Your task to perform on an android device: turn off notifications in google photos Image 0: 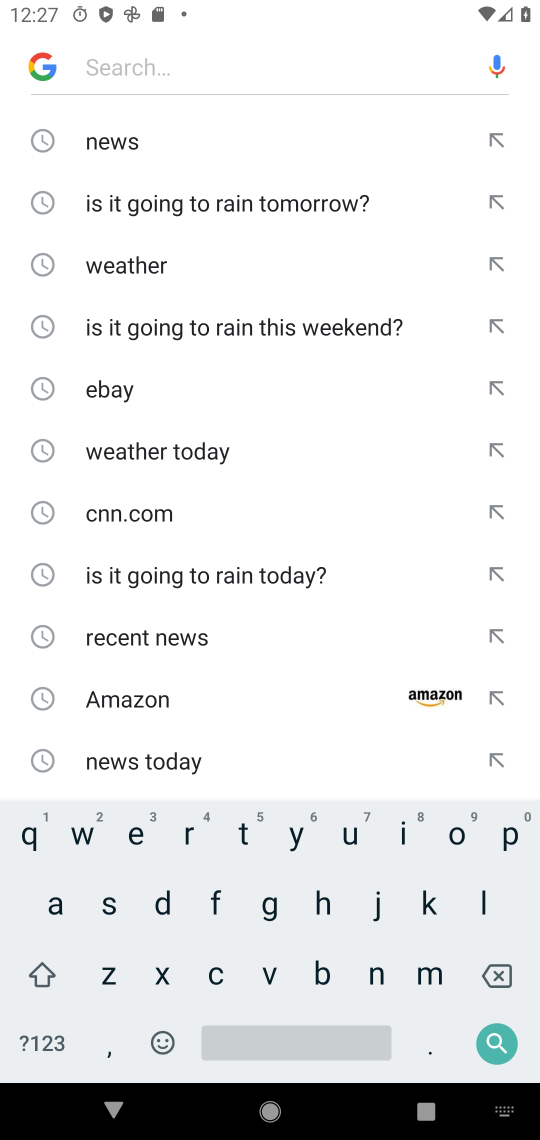
Step 0: press home button
Your task to perform on an android device: turn off notifications in google photos Image 1: 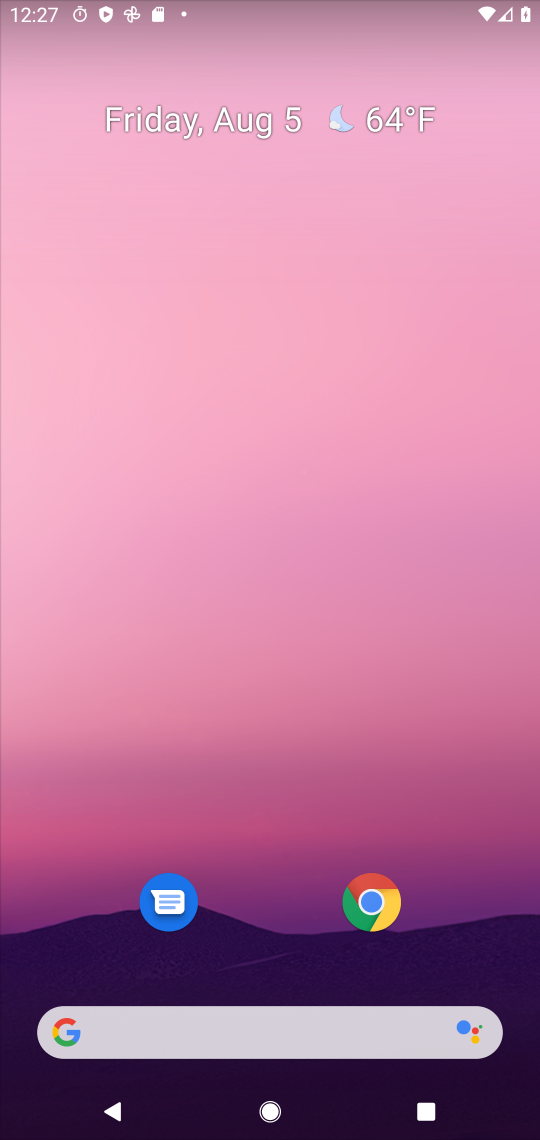
Step 1: drag from (355, 1064) to (401, 167)
Your task to perform on an android device: turn off notifications in google photos Image 2: 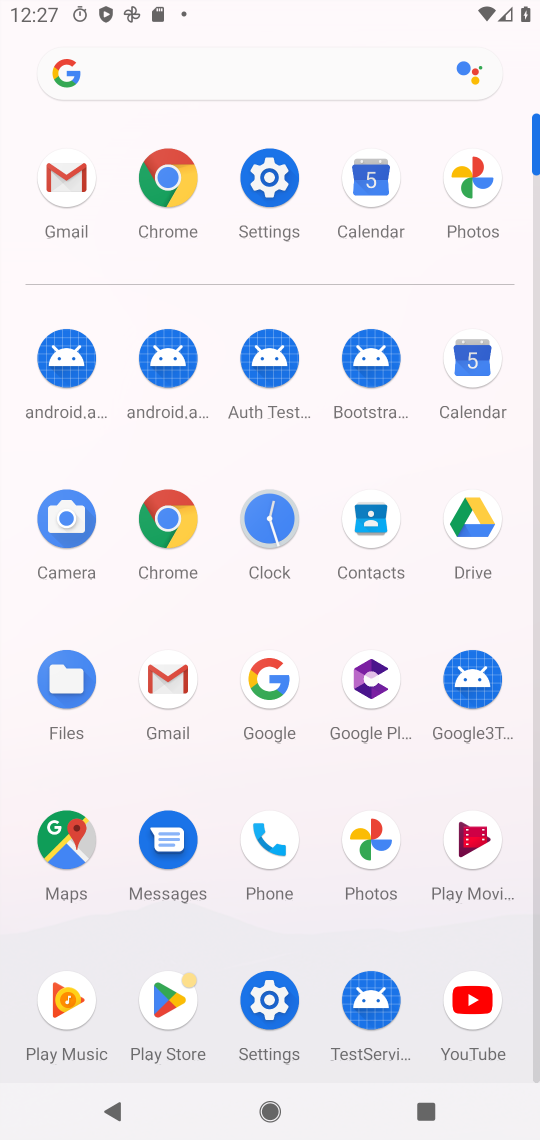
Step 2: click (357, 833)
Your task to perform on an android device: turn off notifications in google photos Image 3: 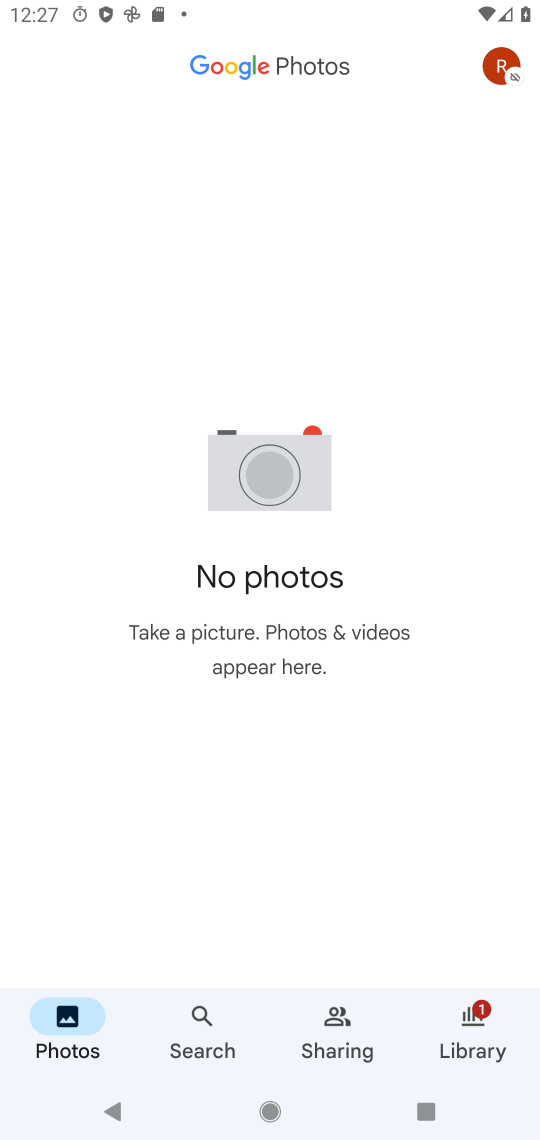
Step 3: click (498, 63)
Your task to perform on an android device: turn off notifications in google photos Image 4: 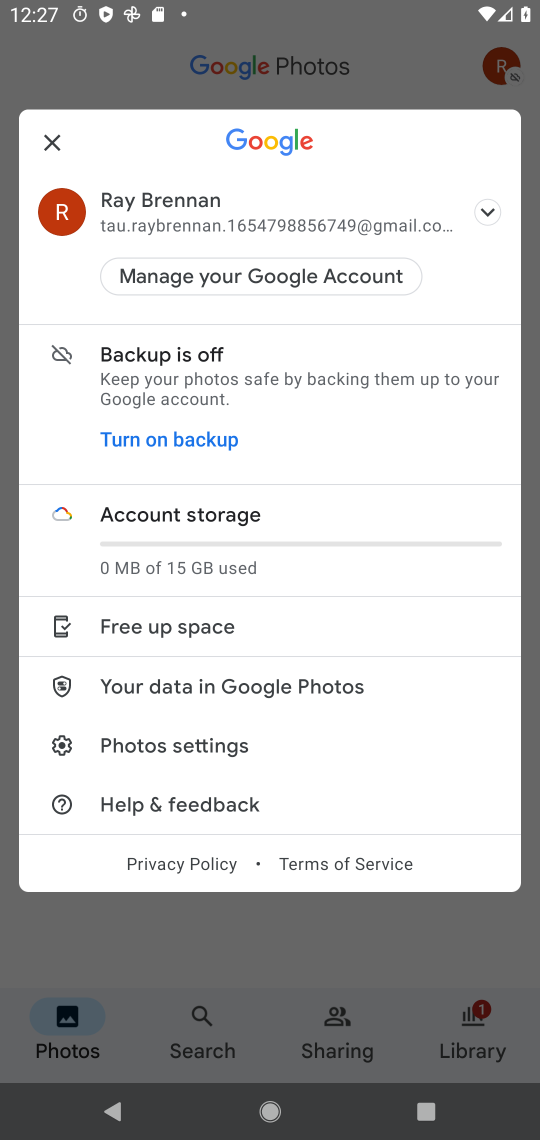
Step 4: click (167, 751)
Your task to perform on an android device: turn off notifications in google photos Image 5: 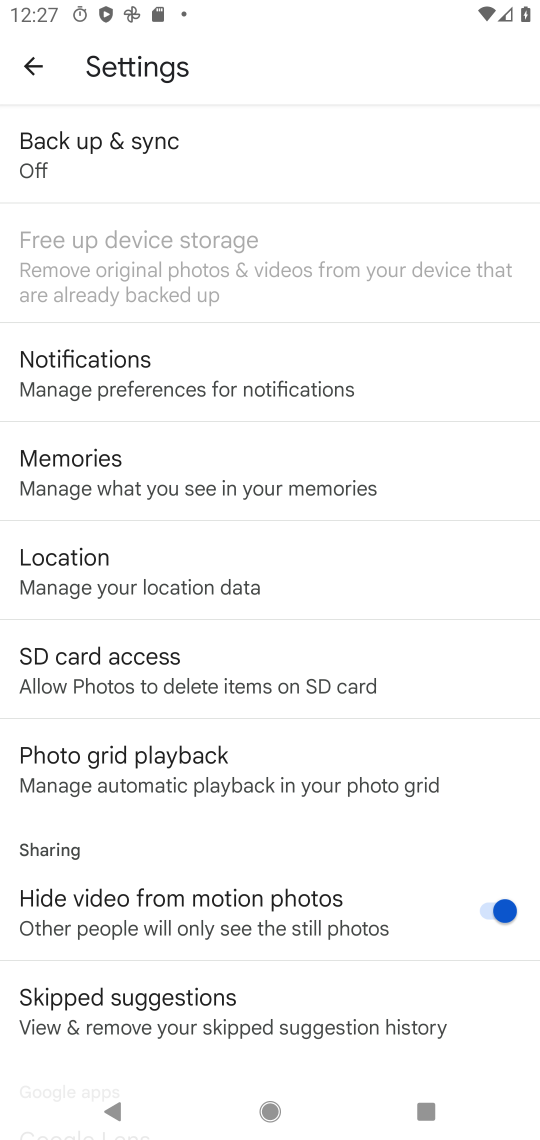
Step 5: click (158, 367)
Your task to perform on an android device: turn off notifications in google photos Image 6: 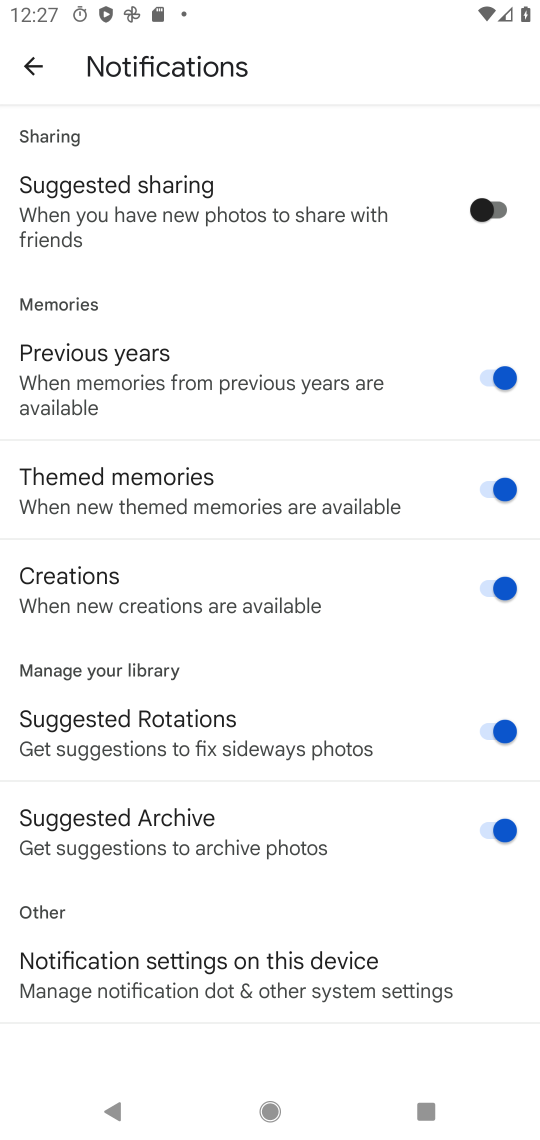
Step 6: click (231, 969)
Your task to perform on an android device: turn off notifications in google photos Image 7: 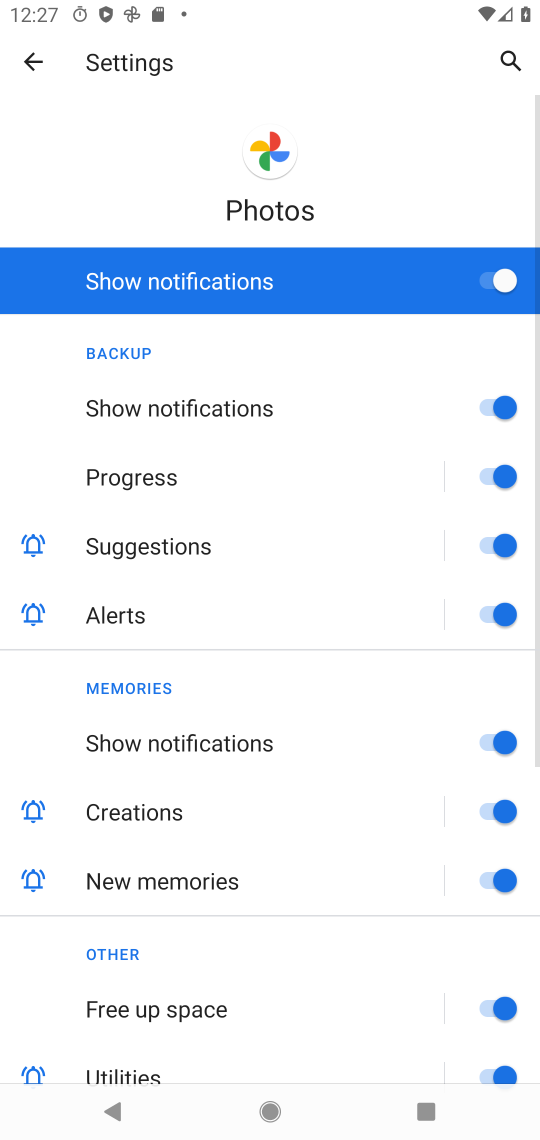
Step 7: click (465, 277)
Your task to perform on an android device: turn off notifications in google photos Image 8: 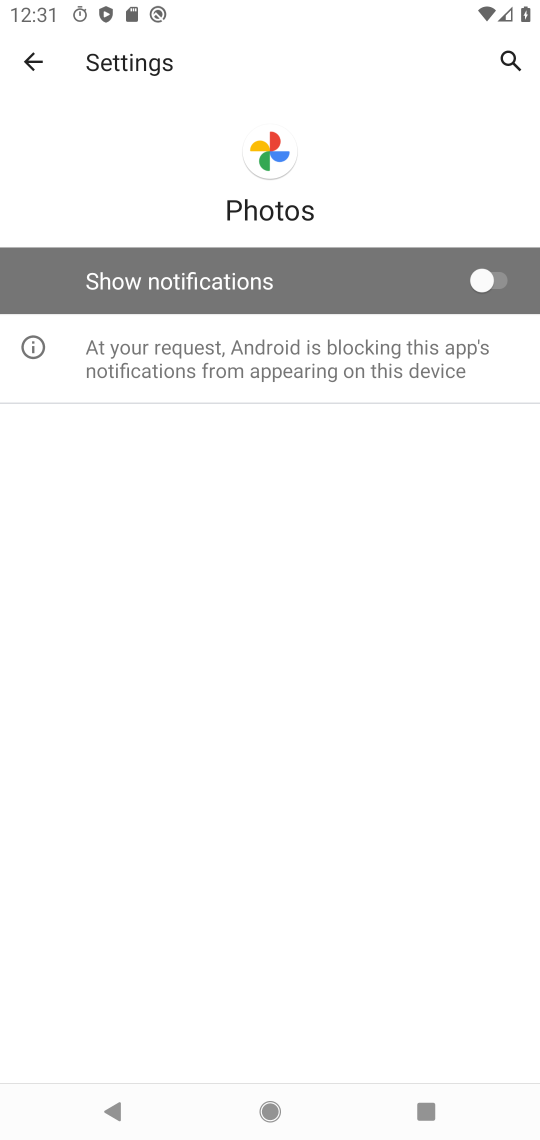
Step 8: task complete